Your task to perform on an android device: check the backup settings in the google photos Image 0: 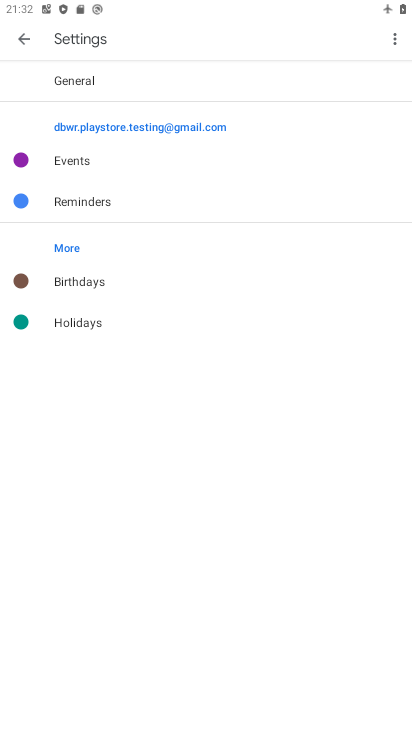
Step 0: press home button
Your task to perform on an android device: check the backup settings in the google photos Image 1: 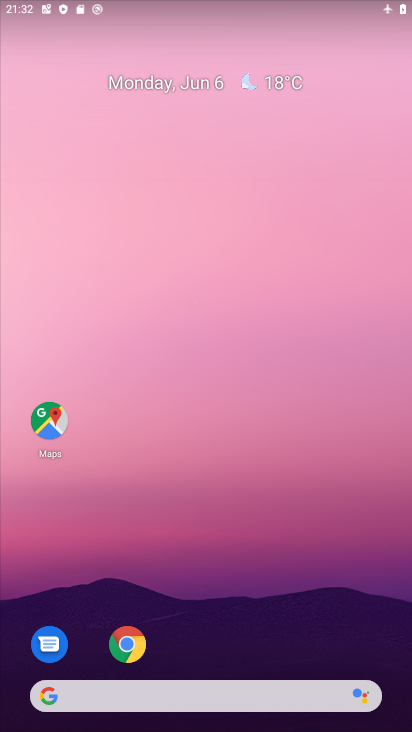
Step 1: drag from (218, 631) to (296, 252)
Your task to perform on an android device: check the backup settings in the google photos Image 2: 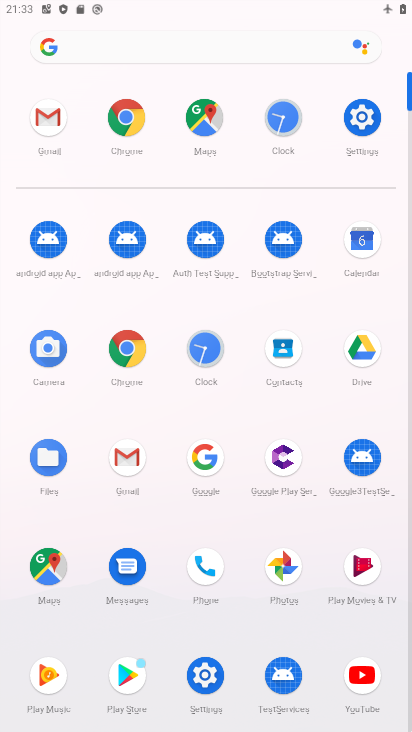
Step 2: click (301, 571)
Your task to perform on an android device: check the backup settings in the google photos Image 3: 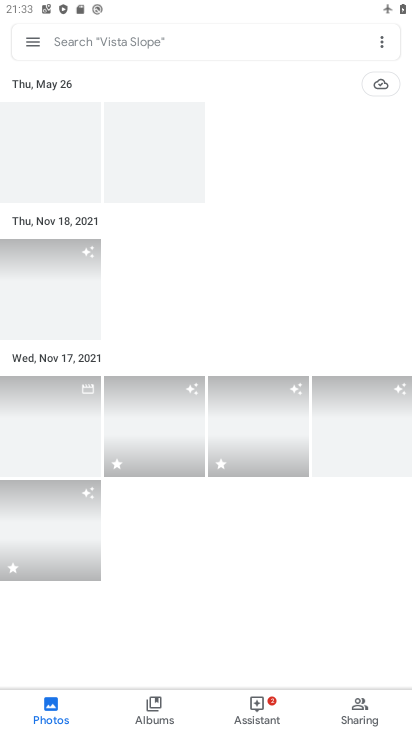
Step 3: click (21, 44)
Your task to perform on an android device: check the backup settings in the google photos Image 4: 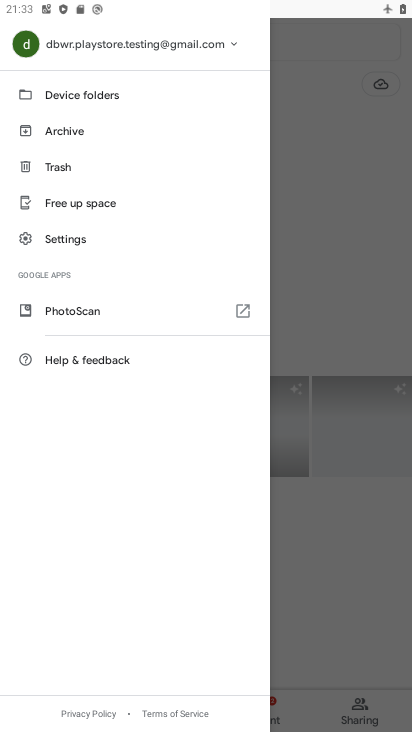
Step 4: click (104, 235)
Your task to perform on an android device: check the backup settings in the google photos Image 5: 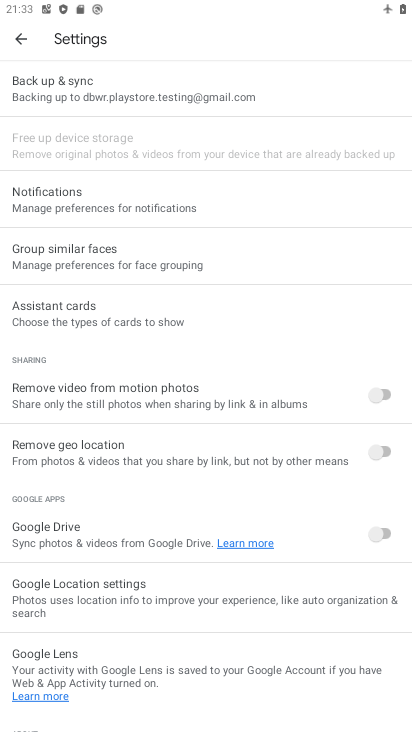
Step 5: click (167, 92)
Your task to perform on an android device: check the backup settings in the google photos Image 6: 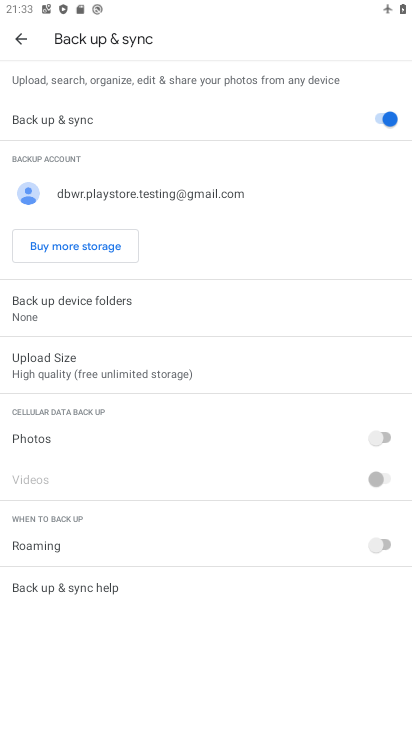
Step 6: task complete